Your task to perform on an android device: see creations saved in the google photos Image 0: 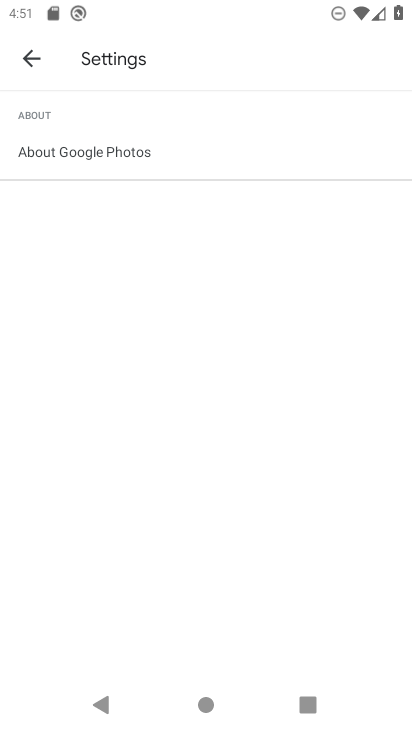
Step 0: click (33, 50)
Your task to perform on an android device: see creations saved in the google photos Image 1: 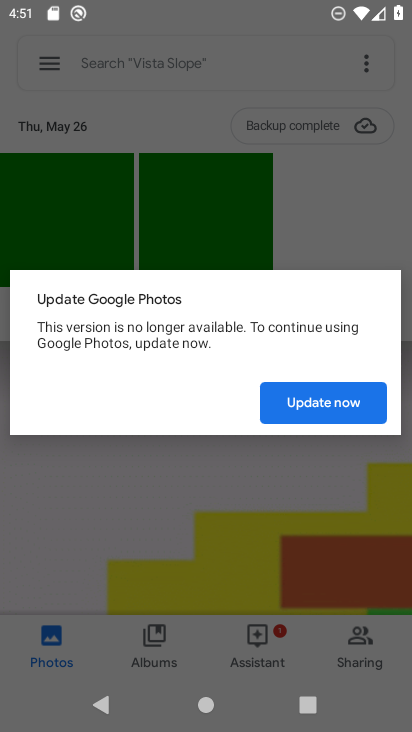
Step 1: click (272, 495)
Your task to perform on an android device: see creations saved in the google photos Image 2: 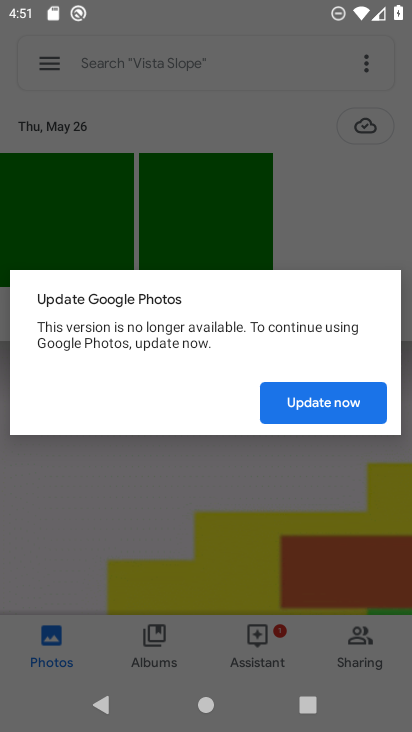
Step 2: task complete